Your task to perform on an android device: Go to notification settings Image 0: 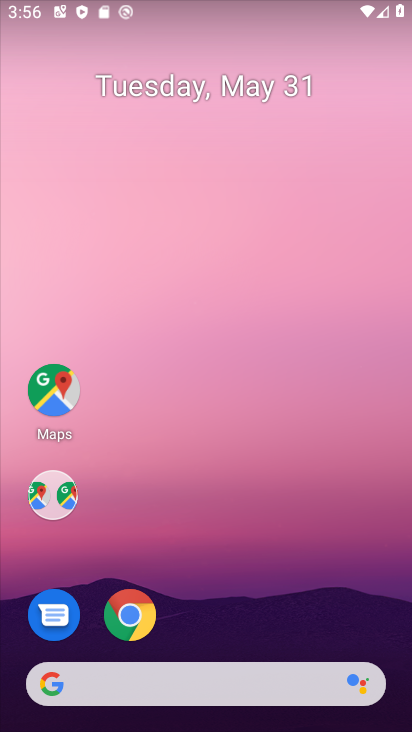
Step 0: drag from (290, 610) to (265, 446)
Your task to perform on an android device: Go to notification settings Image 1: 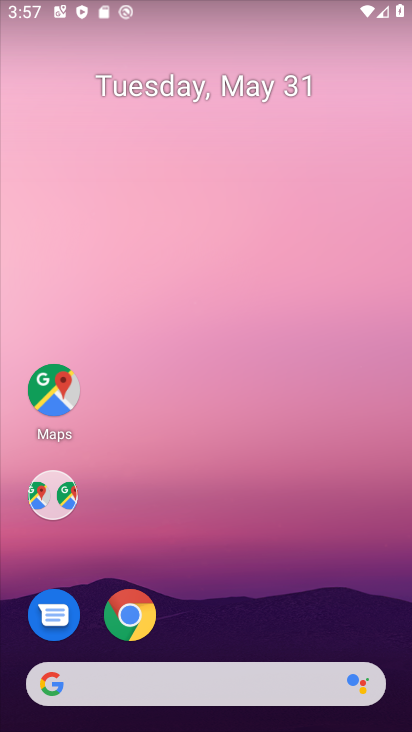
Step 1: drag from (277, 673) to (227, 328)
Your task to perform on an android device: Go to notification settings Image 2: 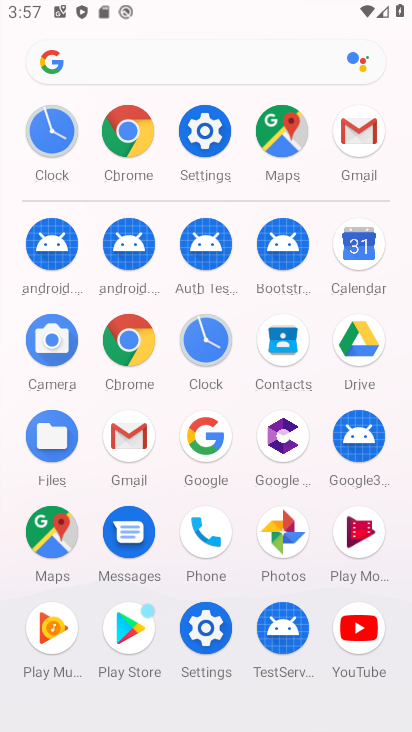
Step 2: click (195, 135)
Your task to perform on an android device: Go to notification settings Image 3: 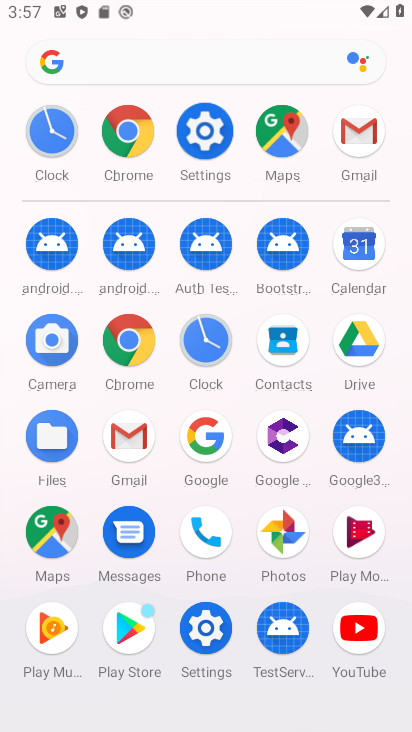
Step 3: click (196, 134)
Your task to perform on an android device: Go to notification settings Image 4: 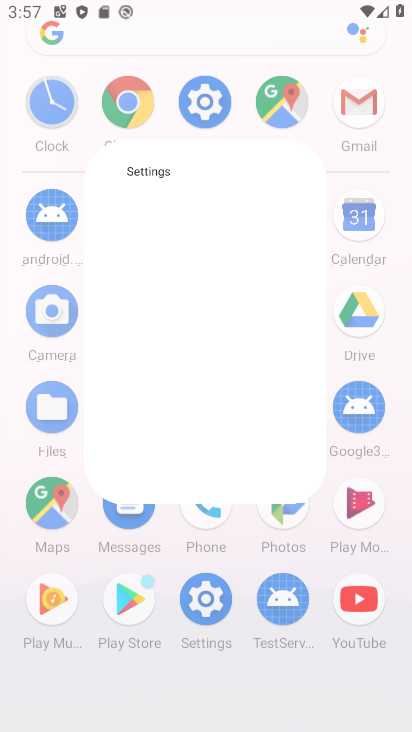
Step 4: click (196, 134)
Your task to perform on an android device: Go to notification settings Image 5: 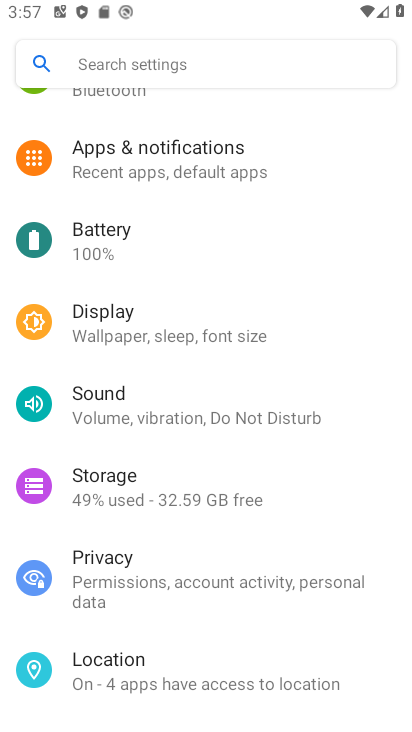
Step 5: click (198, 132)
Your task to perform on an android device: Go to notification settings Image 6: 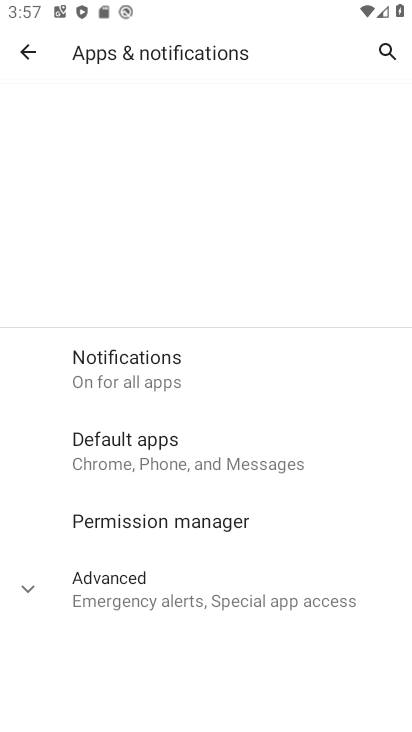
Step 6: click (159, 106)
Your task to perform on an android device: Go to notification settings Image 7: 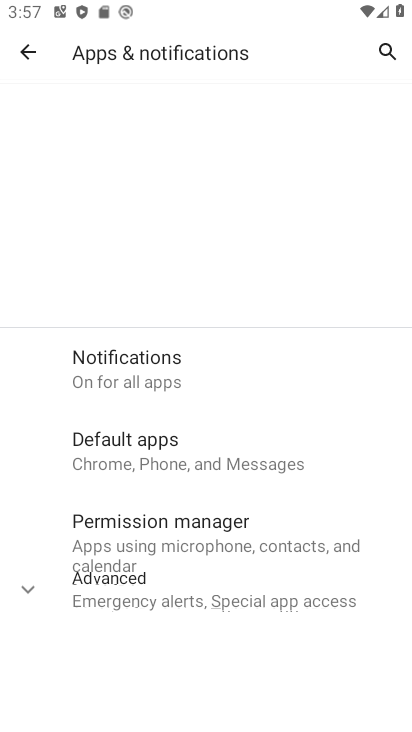
Step 7: click (162, 105)
Your task to perform on an android device: Go to notification settings Image 8: 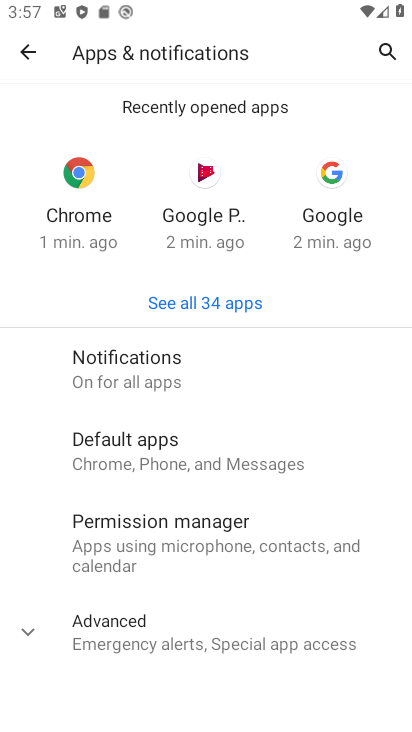
Step 8: click (114, 367)
Your task to perform on an android device: Go to notification settings Image 9: 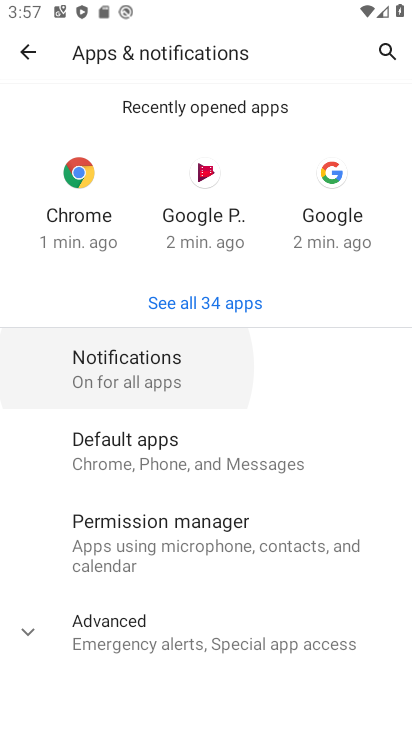
Step 9: click (119, 366)
Your task to perform on an android device: Go to notification settings Image 10: 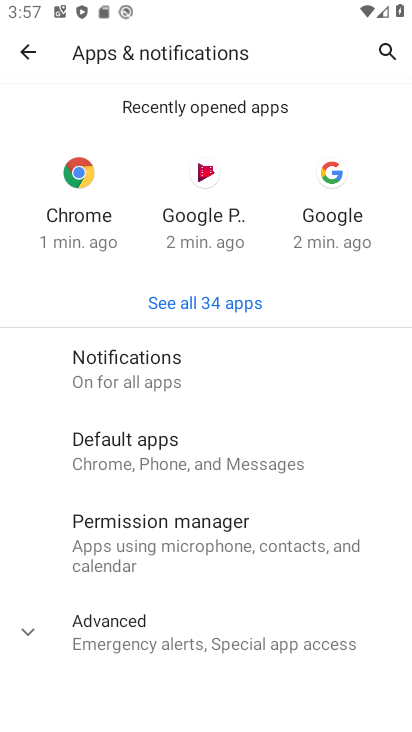
Step 10: click (120, 366)
Your task to perform on an android device: Go to notification settings Image 11: 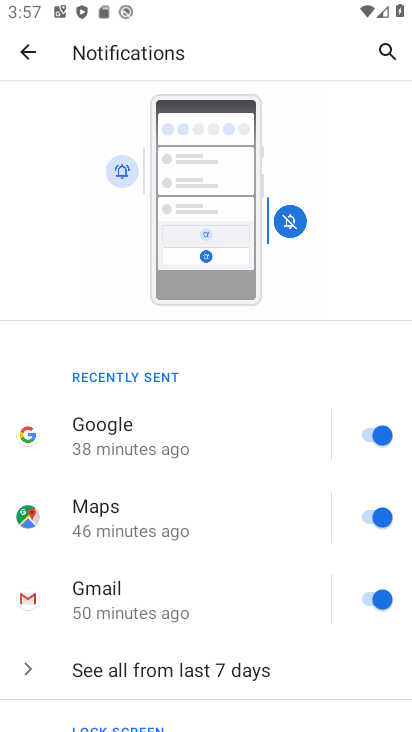
Step 11: task complete